Your task to perform on an android device: add a contact in the contacts app Image 0: 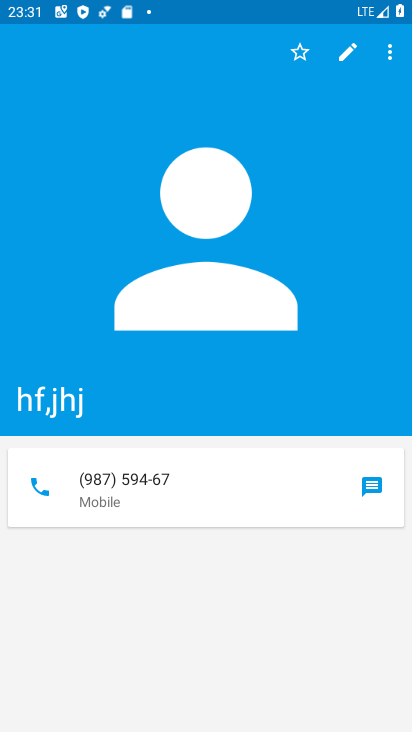
Step 0: press home button
Your task to perform on an android device: add a contact in the contacts app Image 1: 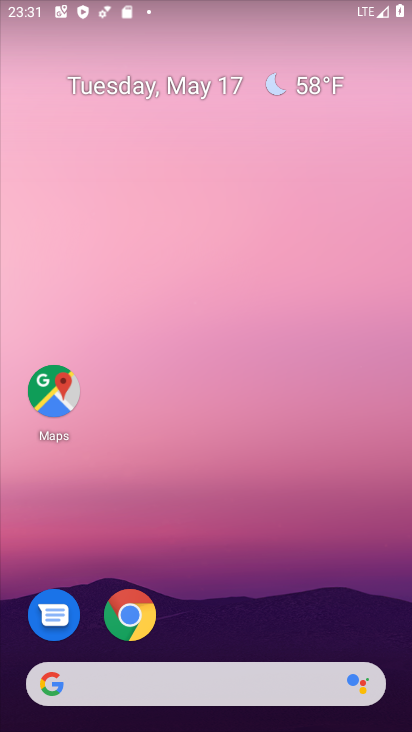
Step 1: drag from (193, 631) to (194, 198)
Your task to perform on an android device: add a contact in the contacts app Image 2: 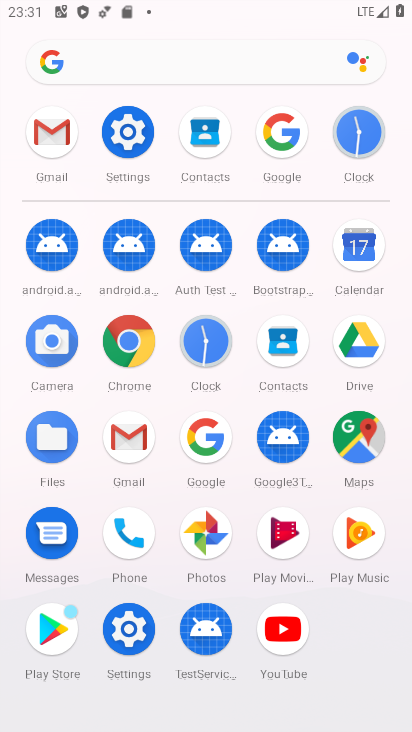
Step 2: click (286, 345)
Your task to perform on an android device: add a contact in the contacts app Image 3: 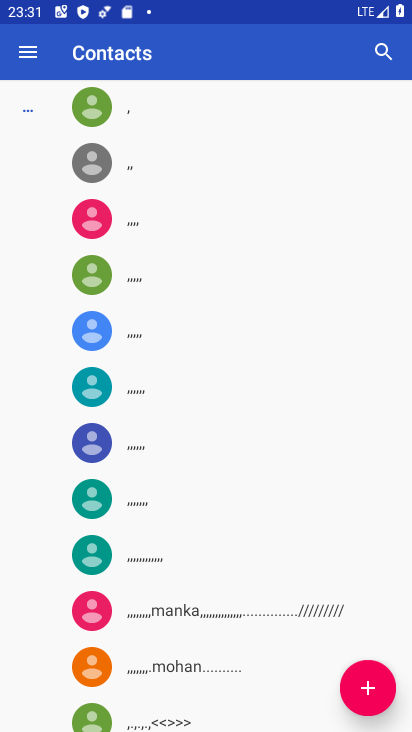
Step 3: click (359, 683)
Your task to perform on an android device: add a contact in the contacts app Image 4: 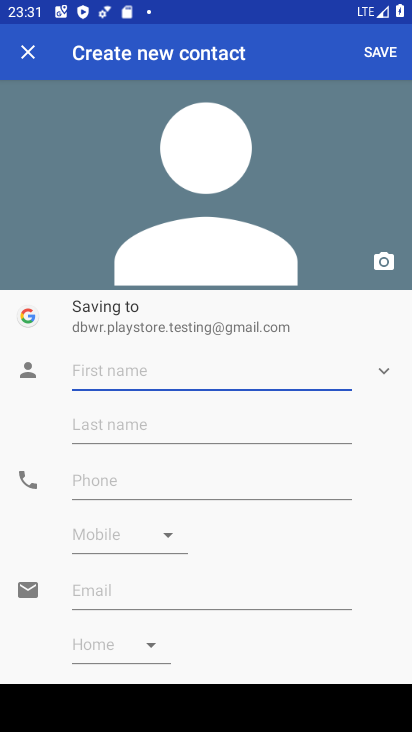
Step 4: click (101, 358)
Your task to perform on an android device: add a contact in the contacts app Image 5: 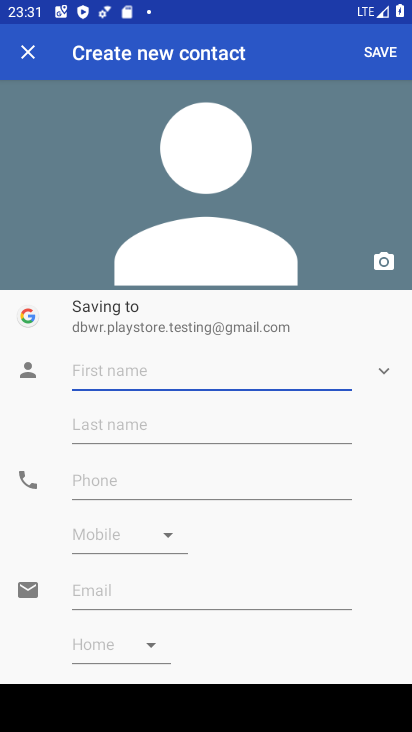
Step 5: type "fhfgh"
Your task to perform on an android device: add a contact in the contacts app Image 6: 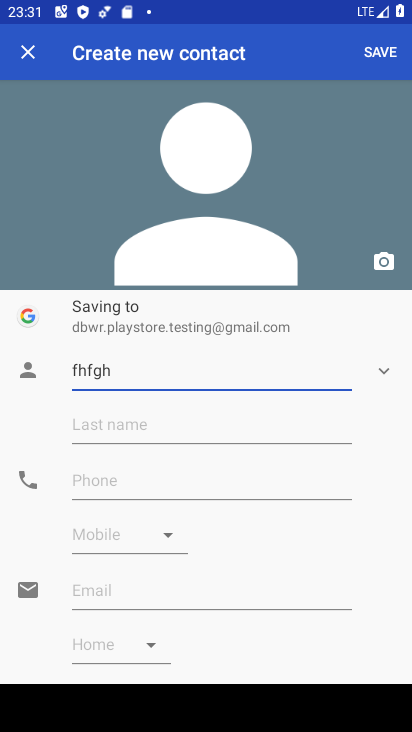
Step 6: click (69, 475)
Your task to perform on an android device: add a contact in the contacts app Image 7: 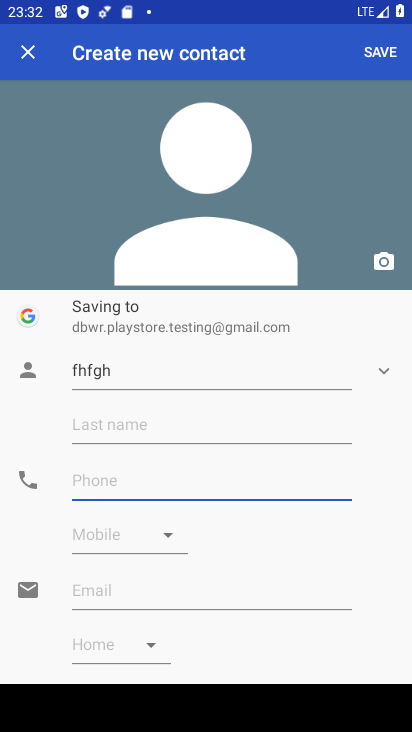
Step 7: type "765476545765"
Your task to perform on an android device: add a contact in the contacts app Image 8: 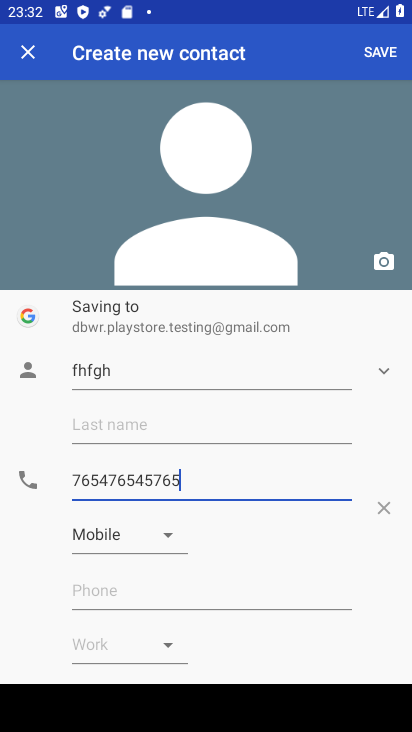
Step 8: click (387, 53)
Your task to perform on an android device: add a contact in the contacts app Image 9: 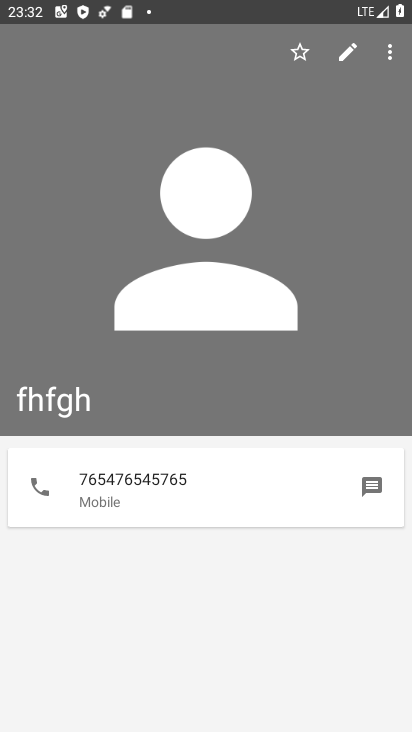
Step 9: task complete